Your task to perform on an android device: toggle notifications settings in the gmail app Image 0: 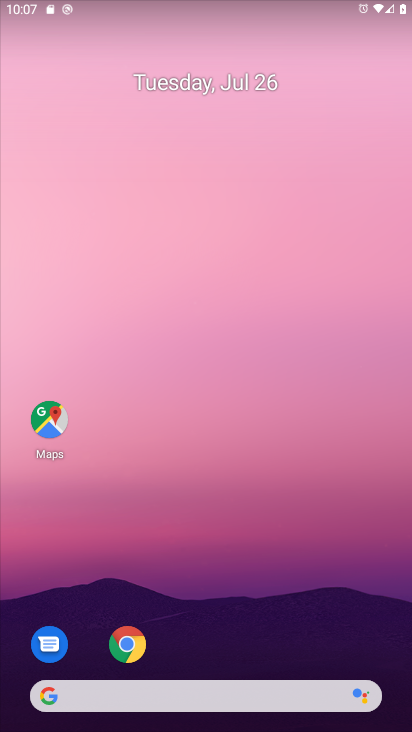
Step 0: drag from (244, 618) to (254, 199)
Your task to perform on an android device: toggle notifications settings in the gmail app Image 1: 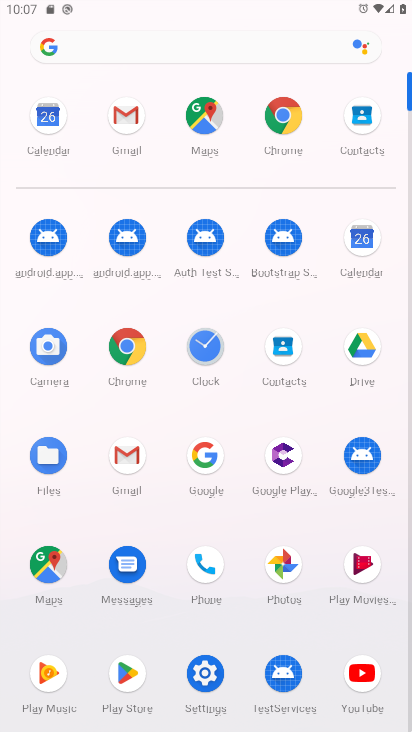
Step 1: click (129, 459)
Your task to perform on an android device: toggle notifications settings in the gmail app Image 2: 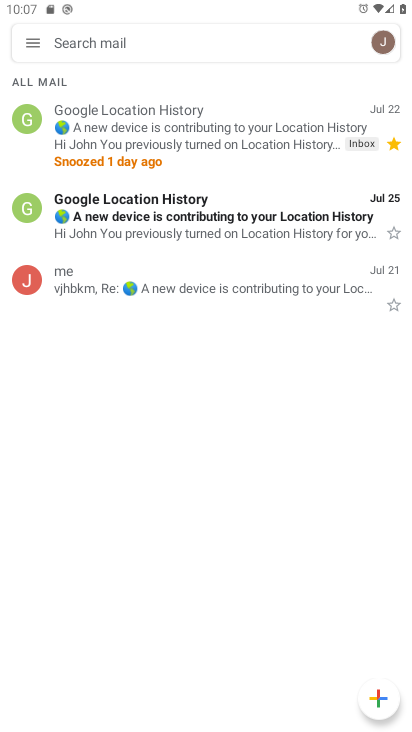
Step 2: click (34, 42)
Your task to perform on an android device: toggle notifications settings in the gmail app Image 3: 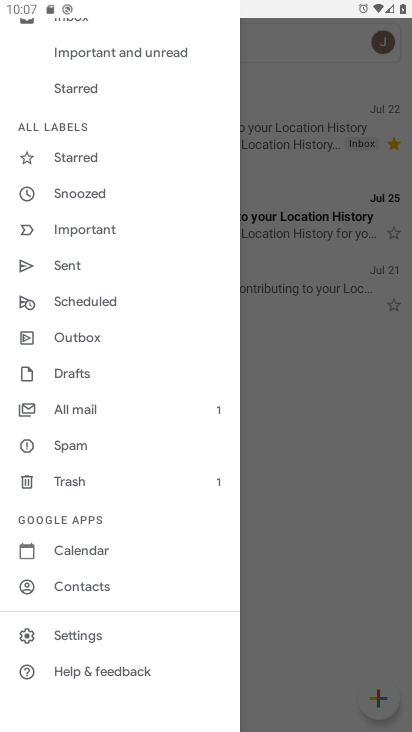
Step 3: click (81, 637)
Your task to perform on an android device: toggle notifications settings in the gmail app Image 4: 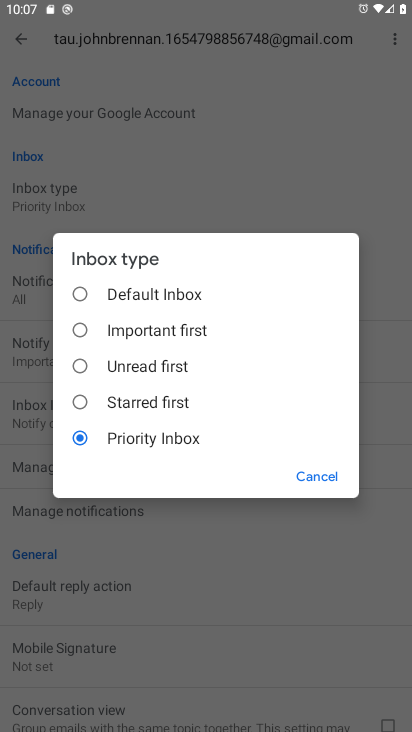
Step 4: click (322, 475)
Your task to perform on an android device: toggle notifications settings in the gmail app Image 5: 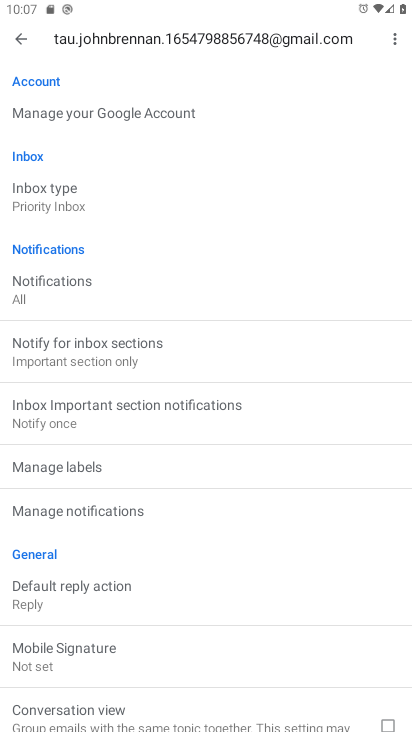
Step 5: click (20, 31)
Your task to perform on an android device: toggle notifications settings in the gmail app Image 6: 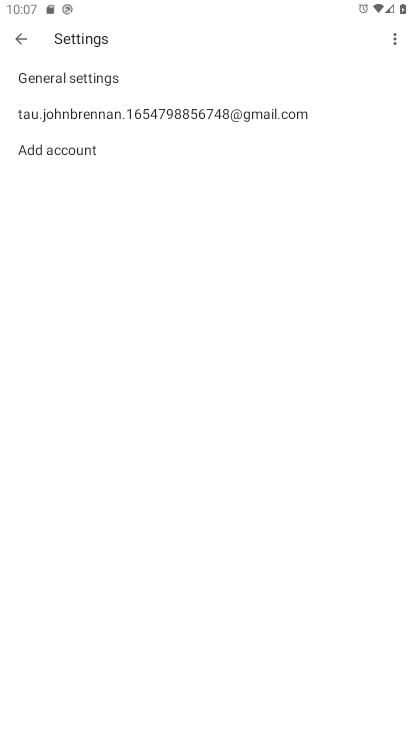
Step 6: click (68, 76)
Your task to perform on an android device: toggle notifications settings in the gmail app Image 7: 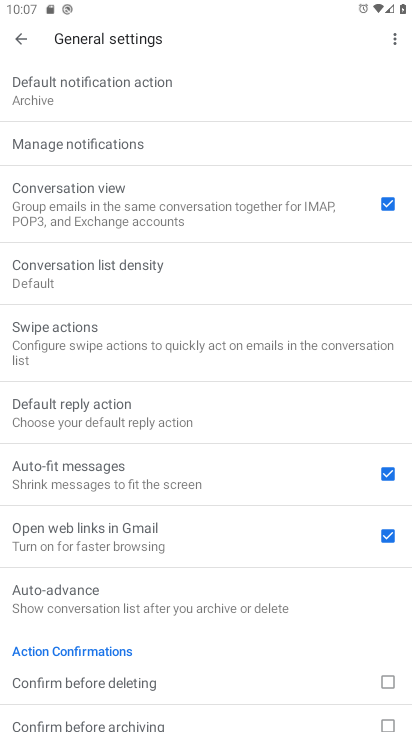
Step 7: click (112, 136)
Your task to perform on an android device: toggle notifications settings in the gmail app Image 8: 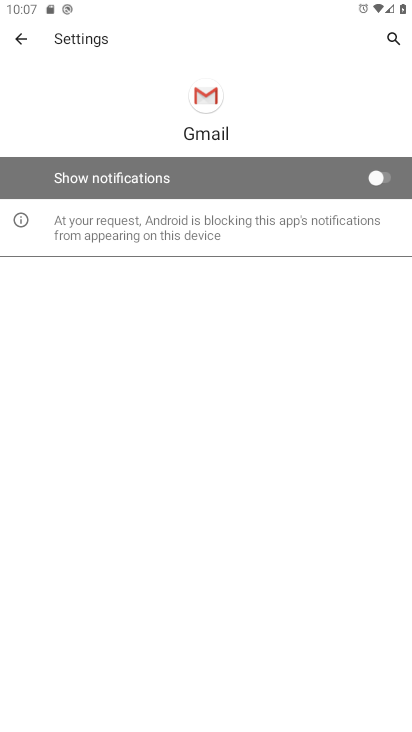
Step 8: click (343, 179)
Your task to perform on an android device: toggle notifications settings in the gmail app Image 9: 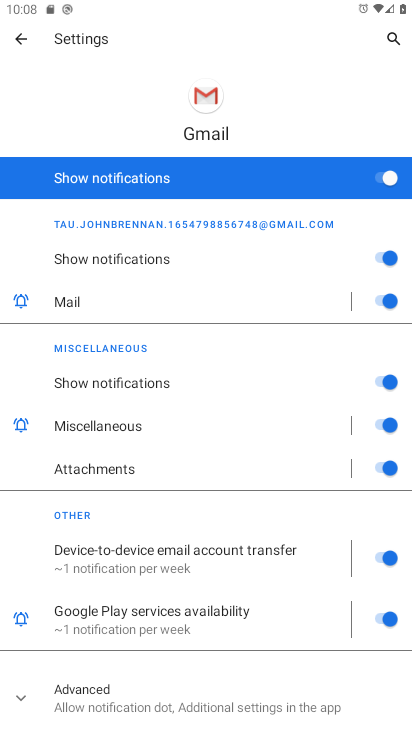
Step 9: task complete